Your task to perform on an android device: Add "usb-a" to the cart on newegg.com, then select checkout. Image 0: 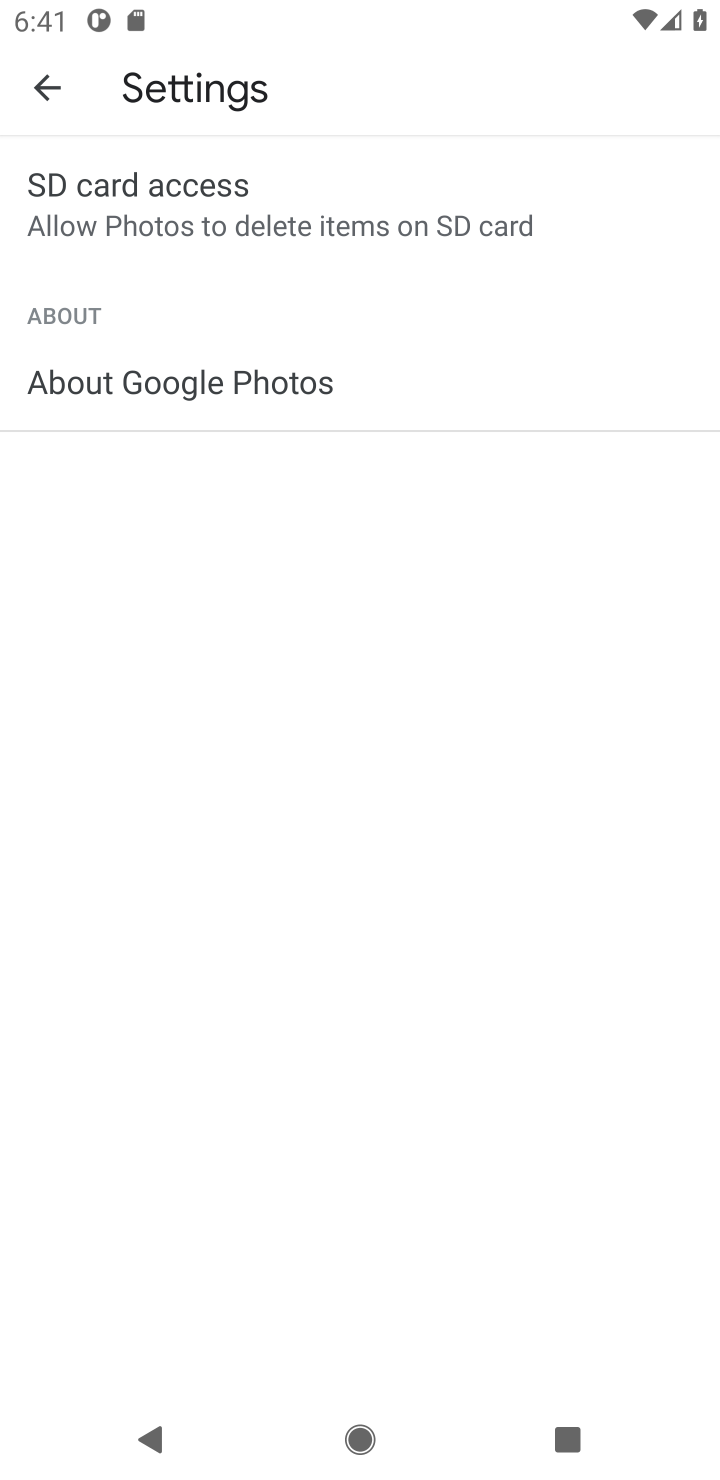
Step 0: press home button
Your task to perform on an android device: Add "usb-a" to the cart on newegg.com, then select checkout. Image 1: 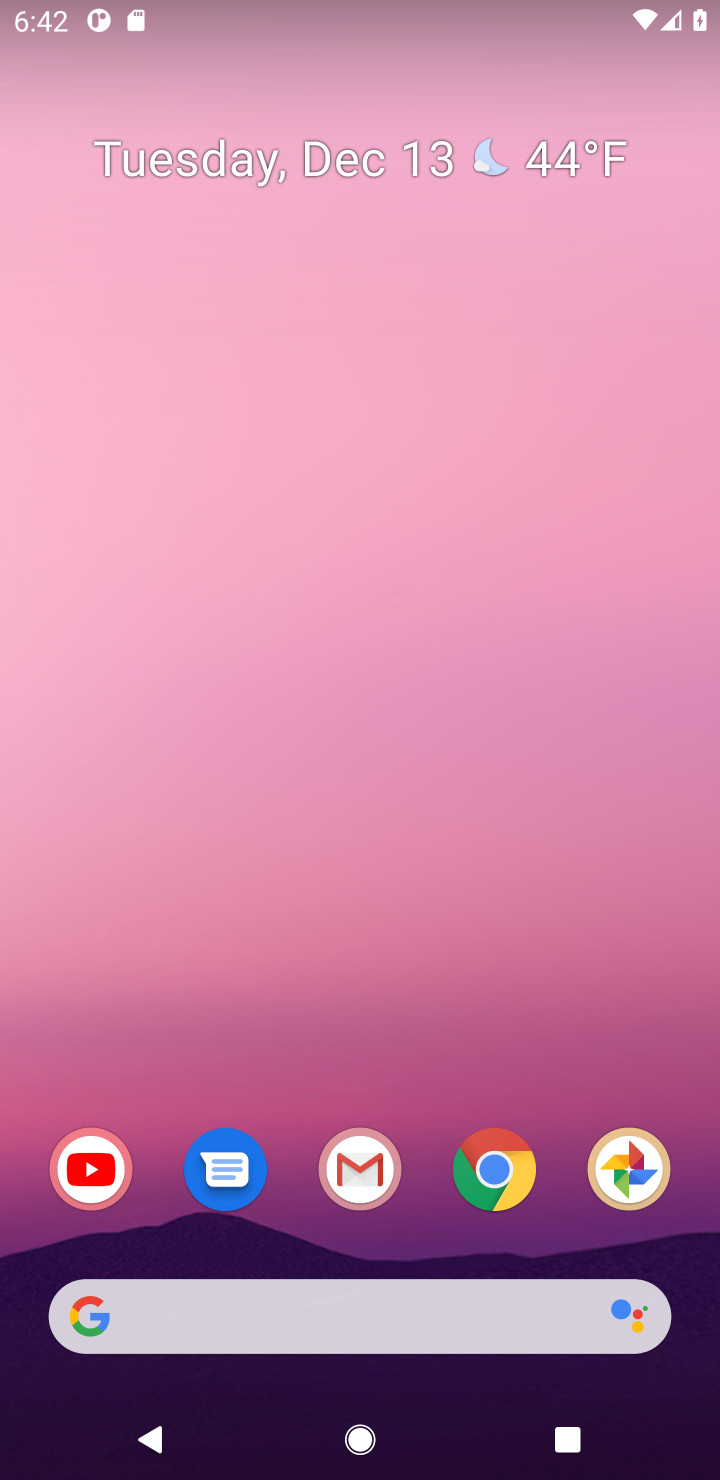
Step 1: click (514, 1200)
Your task to perform on an android device: Add "usb-a" to the cart on newegg.com, then select checkout. Image 2: 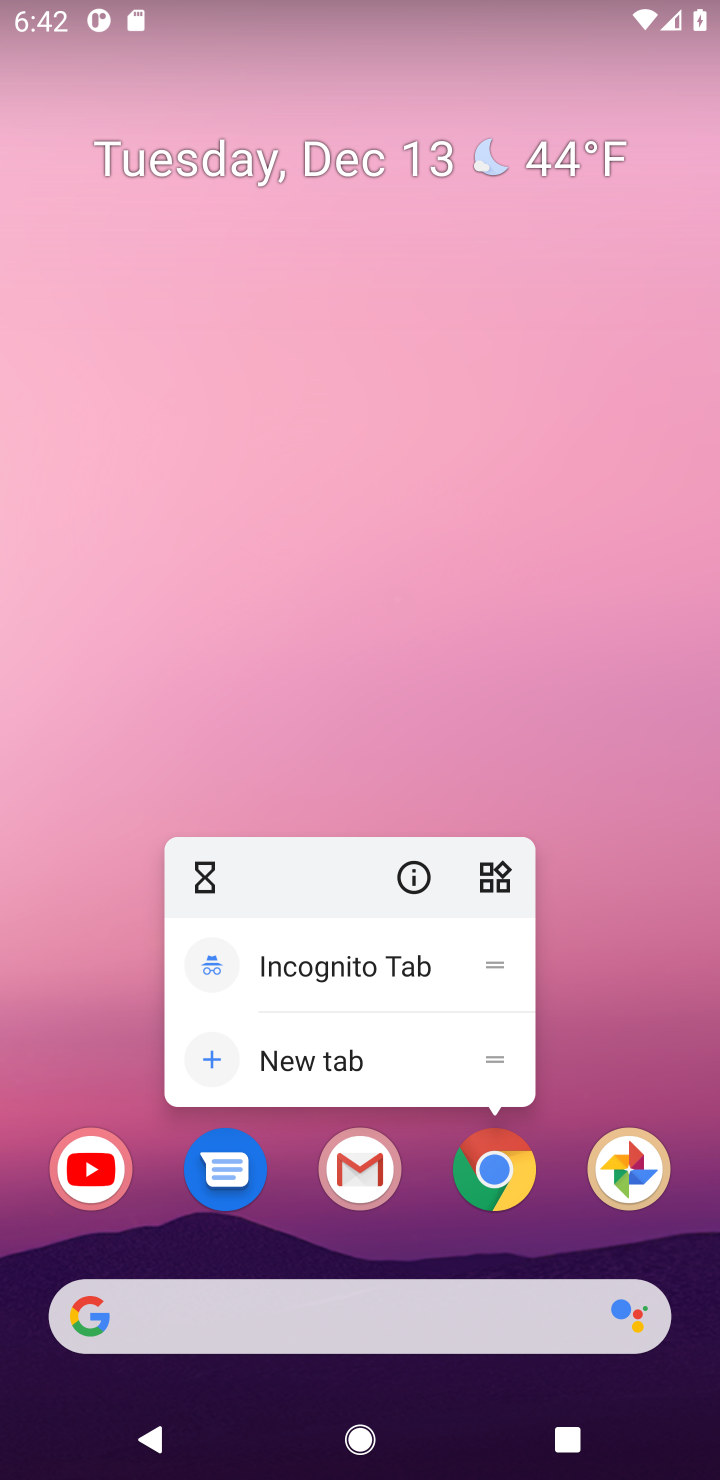
Step 2: click (465, 1162)
Your task to perform on an android device: Add "usb-a" to the cart on newegg.com, then select checkout. Image 3: 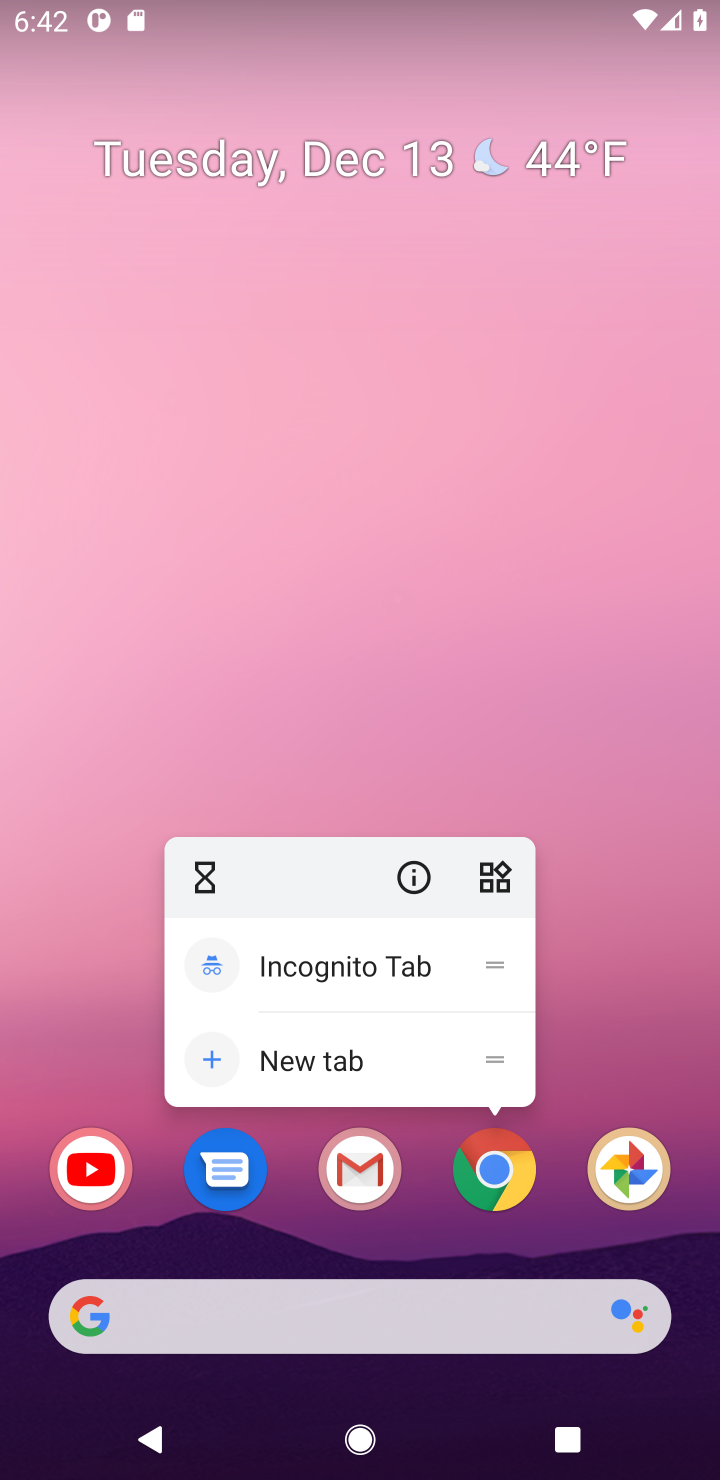
Step 3: click (489, 1164)
Your task to perform on an android device: Add "usb-a" to the cart on newegg.com, then select checkout. Image 4: 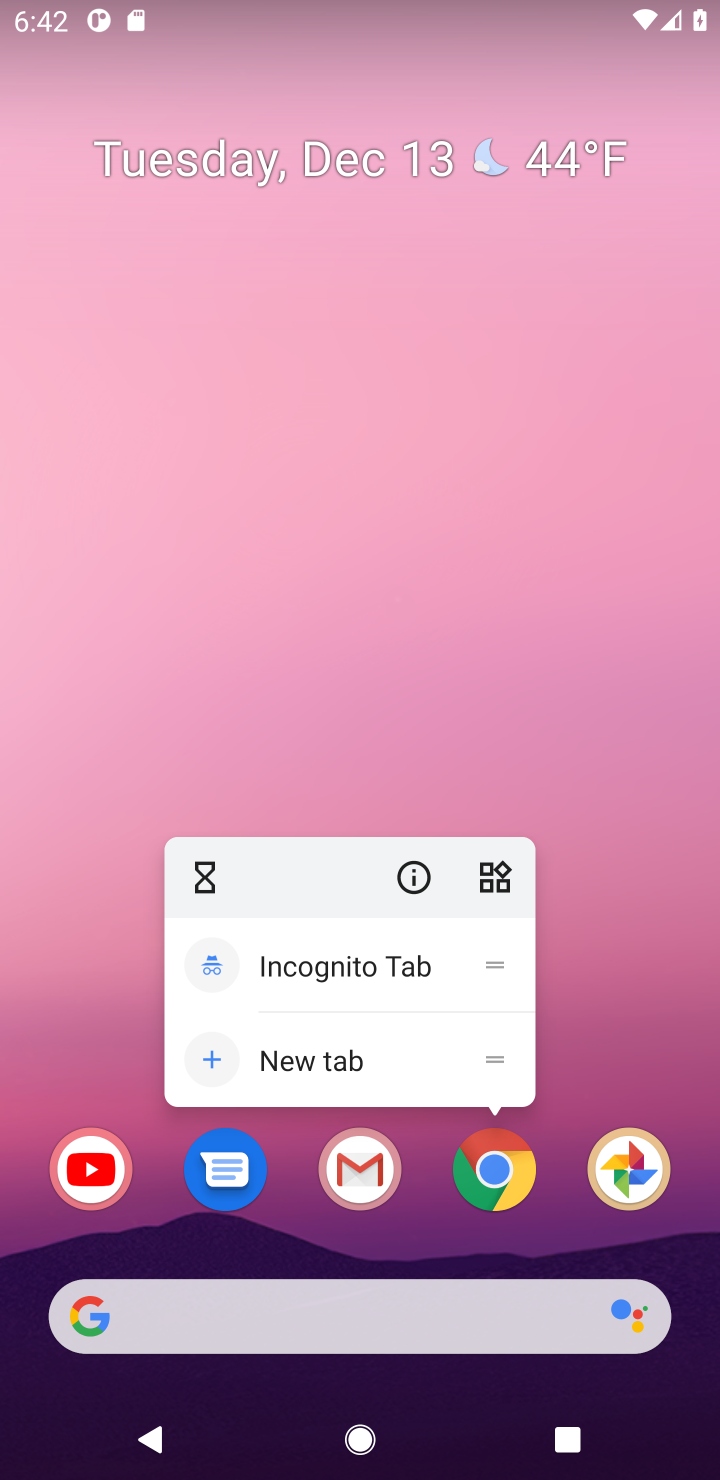
Step 4: click (489, 1164)
Your task to perform on an android device: Add "usb-a" to the cart on newegg.com, then select checkout. Image 5: 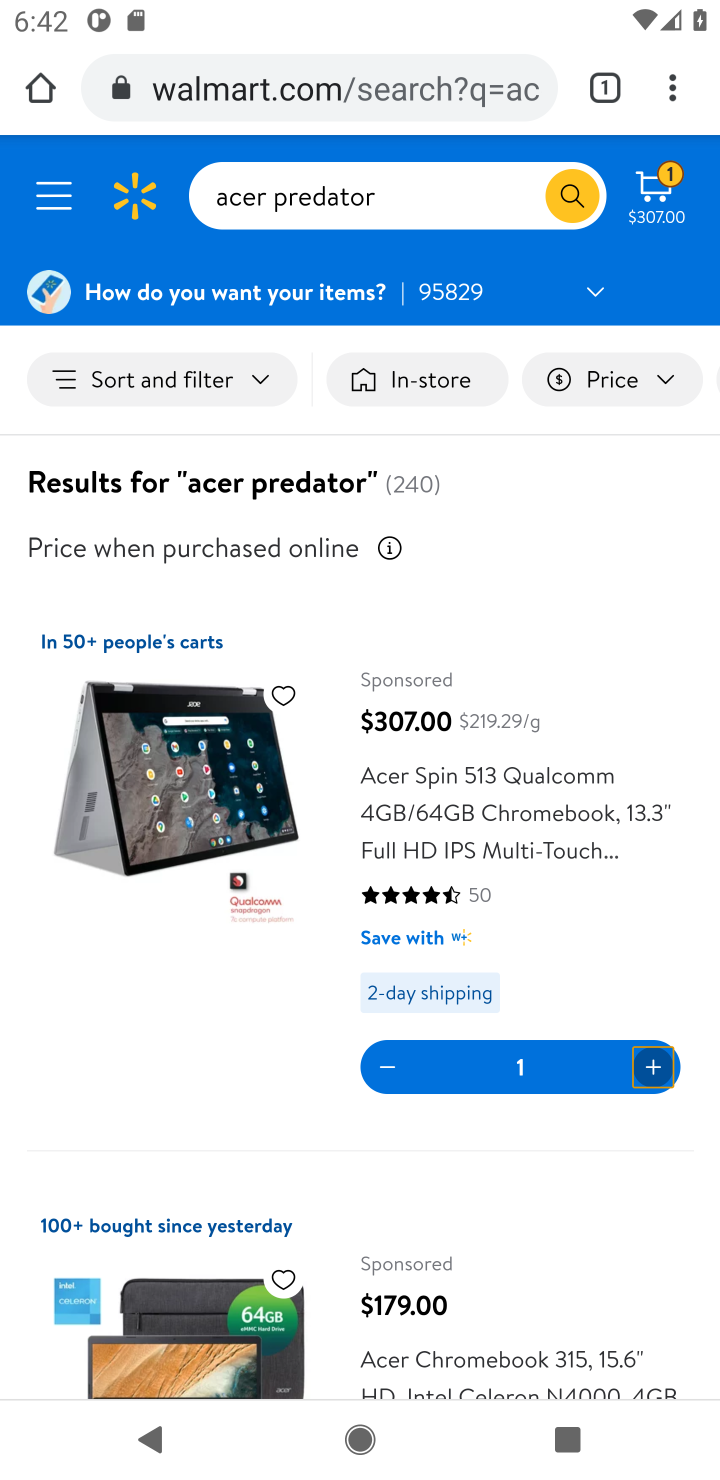
Step 5: click (238, 96)
Your task to perform on an android device: Add "usb-a" to the cart on newegg.com, then select checkout. Image 6: 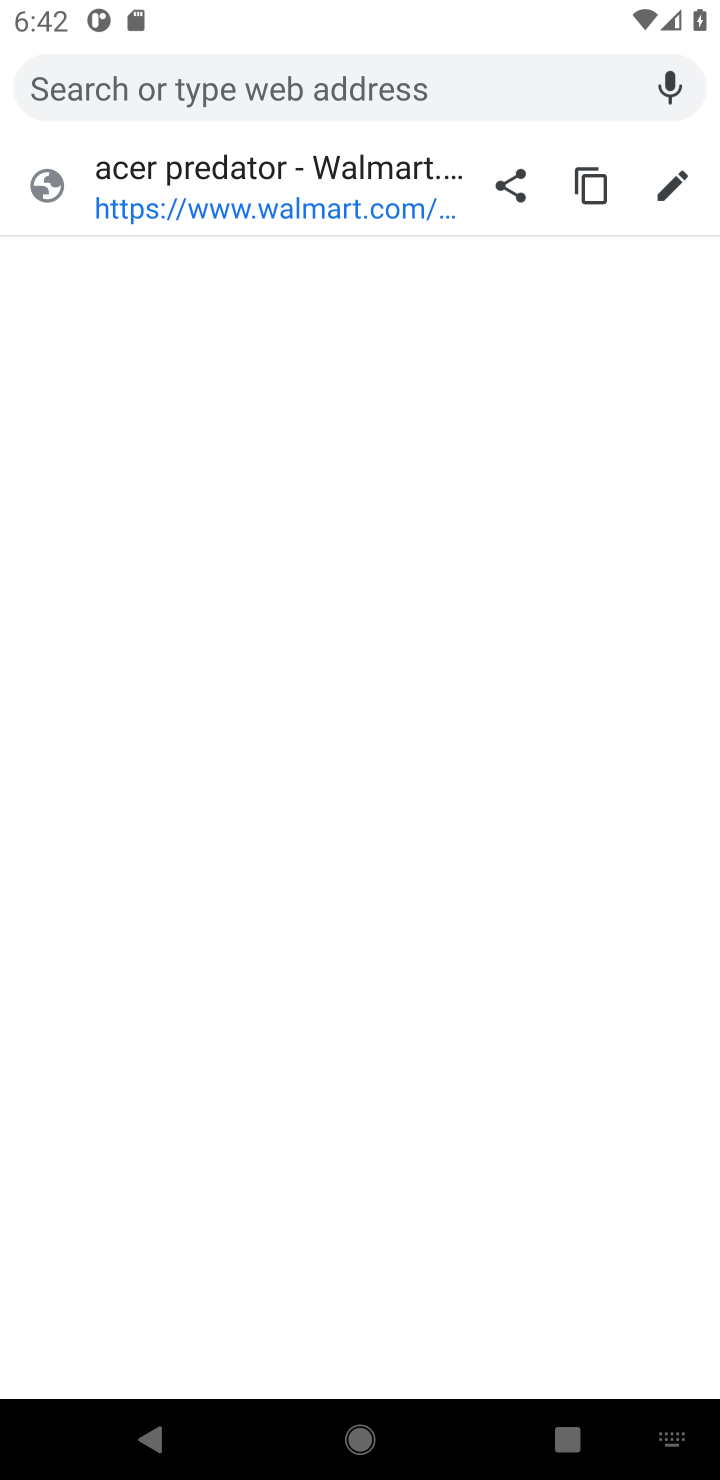
Step 6: type "newegg"
Your task to perform on an android device: Add "usb-a" to the cart on newegg.com, then select checkout. Image 7: 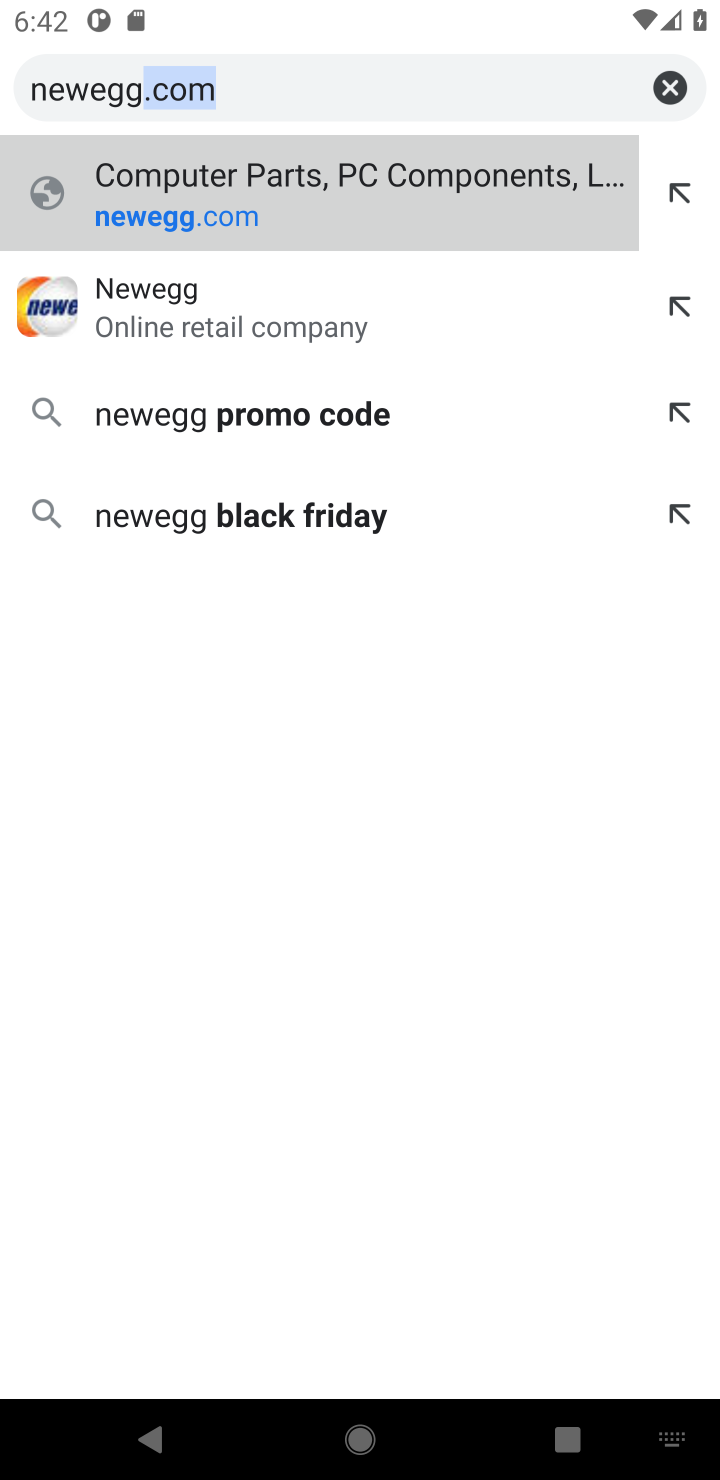
Step 7: click (424, 193)
Your task to perform on an android device: Add "usb-a" to the cart on newegg.com, then select checkout. Image 8: 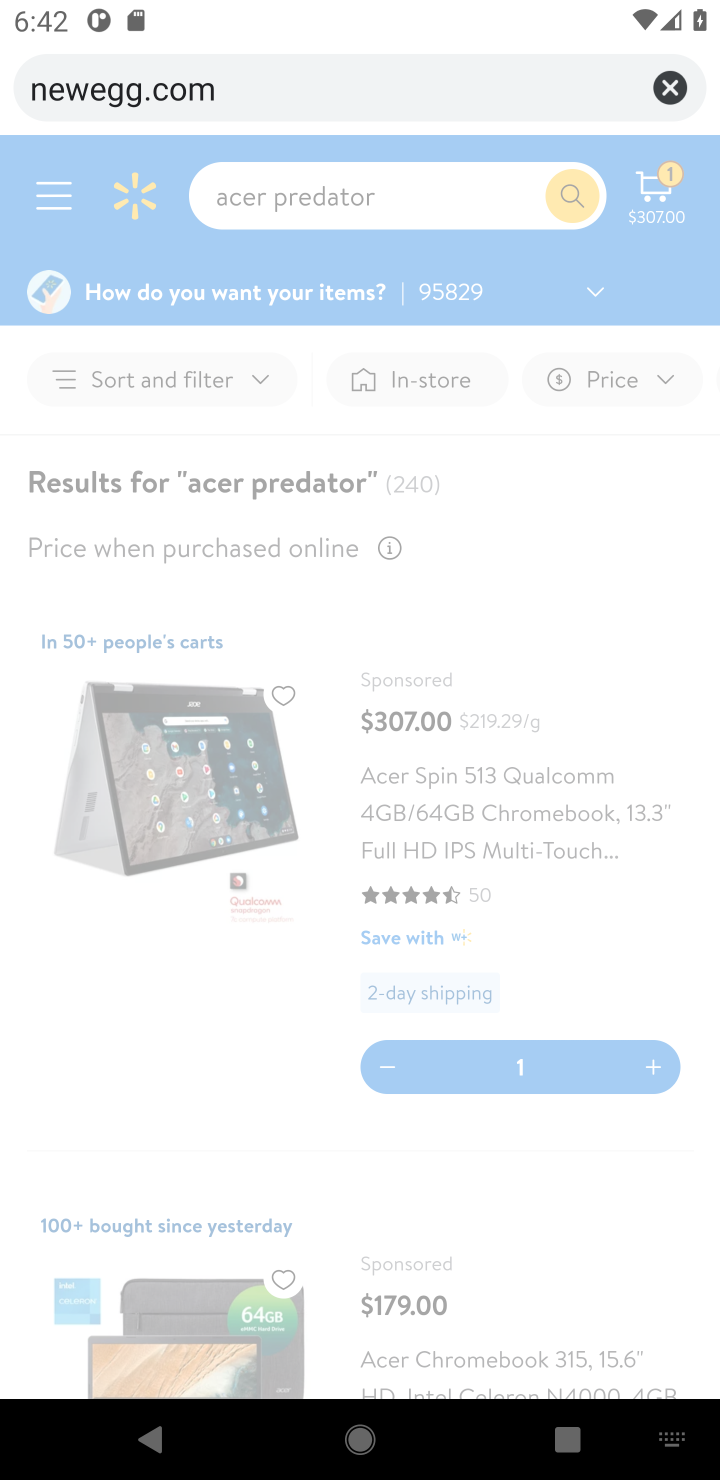
Step 8: click (424, 193)
Your task to perform on an android device: Add "usb-a" to the cart on newegg.com, then select checkout. Image 9: 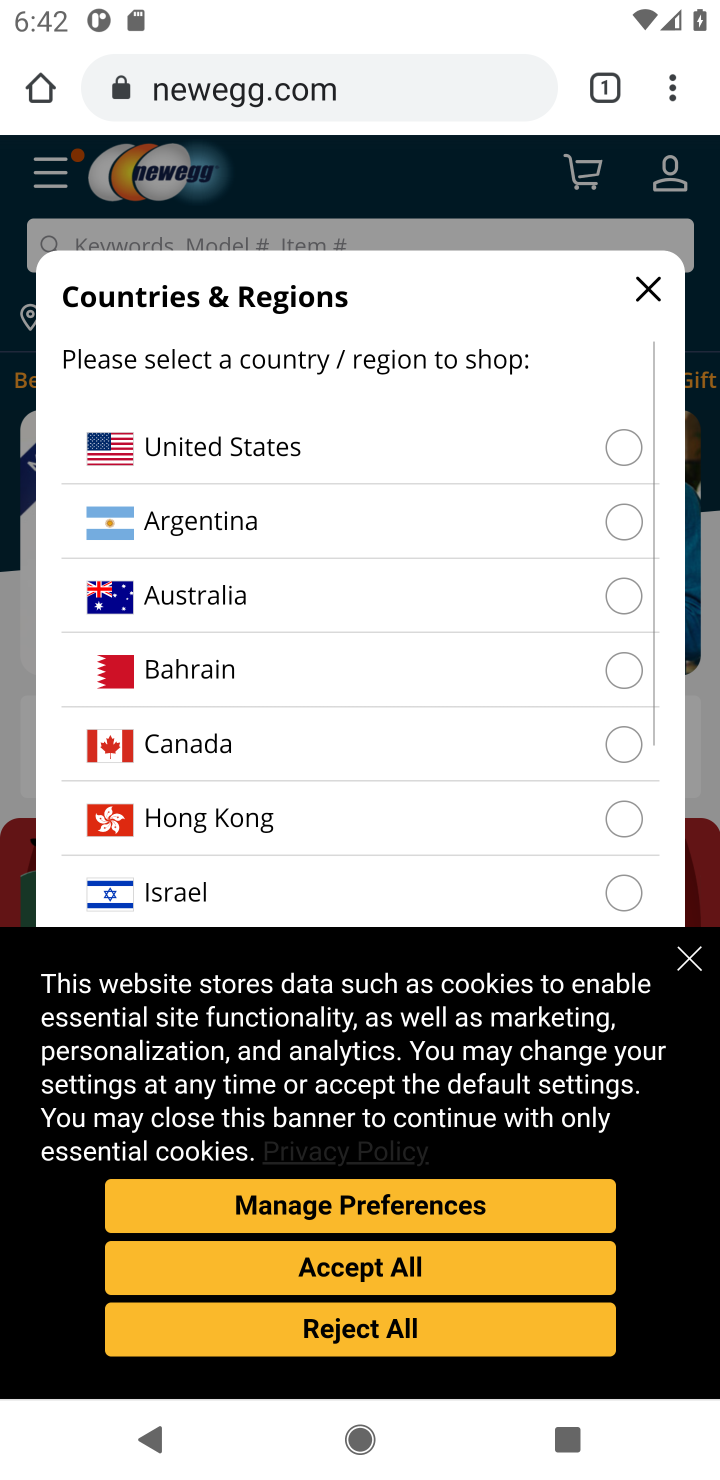
Step 9: click (456, 454)
Your task to perform on an android device: Add "usb-a" to the cart on newegg.com, then select checkout. Image 10: 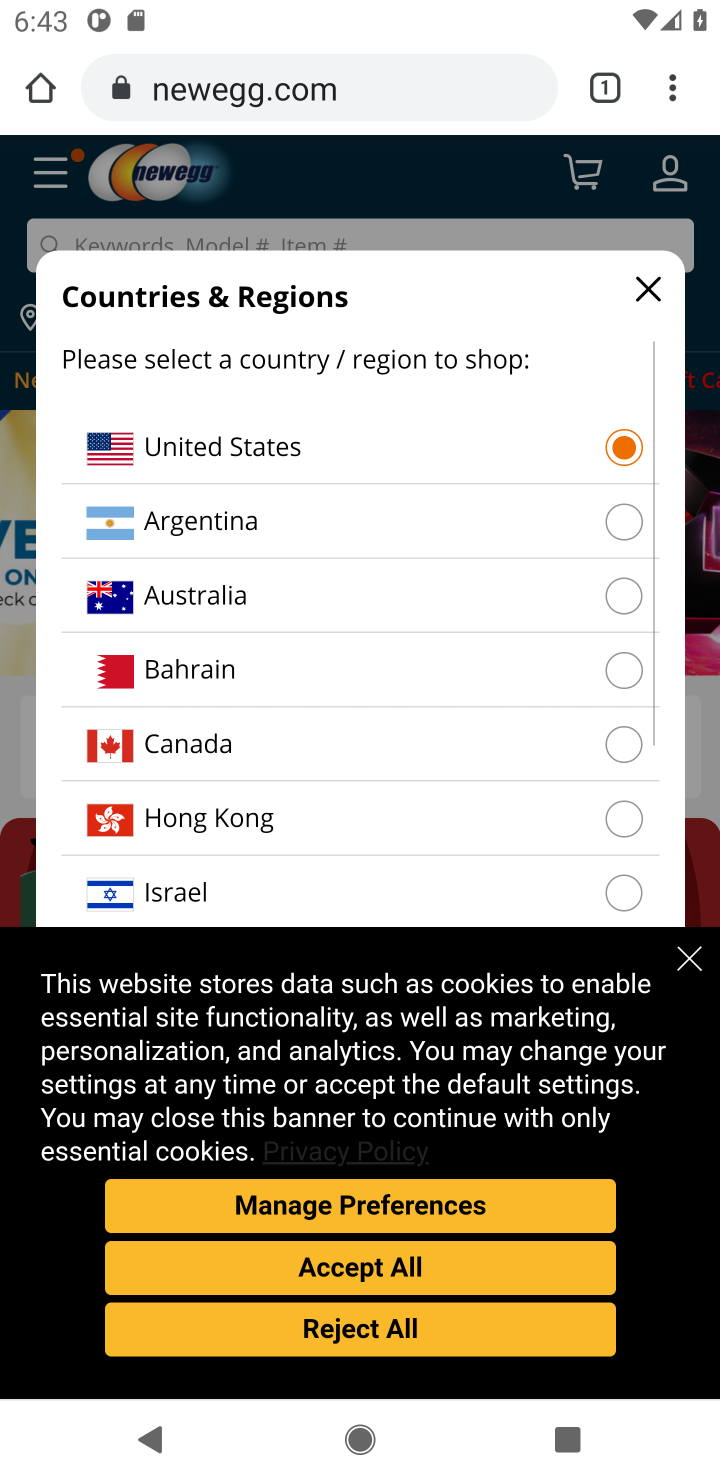
Step 10: click (450, 1253)
Your task to perform on an android device: Add "usb-a" to the cart on newegg.com, then select checkout. Image 11: 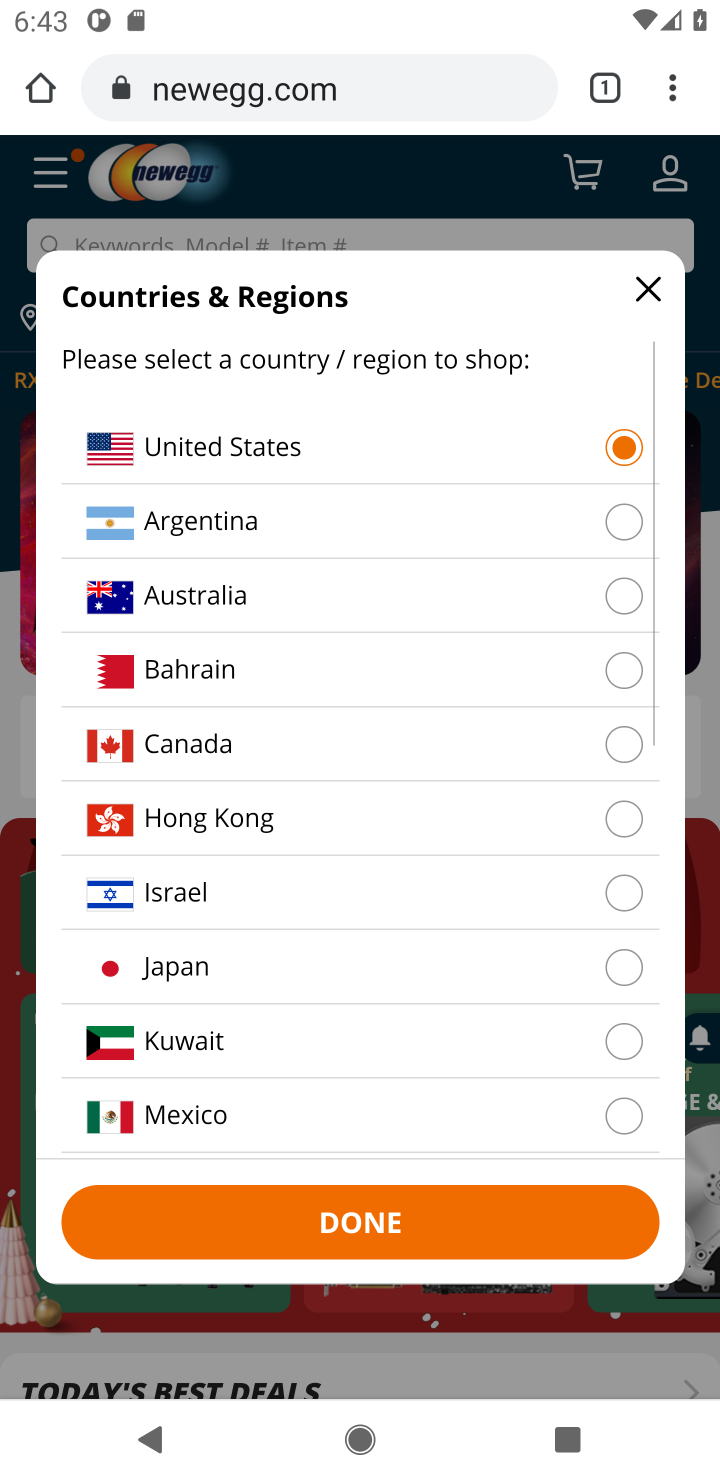
Step 11: click (411, 1198)
Your task to perform on an android device: Add "usb-a" to the cart on newegg.com, then select checkout. Image 12: 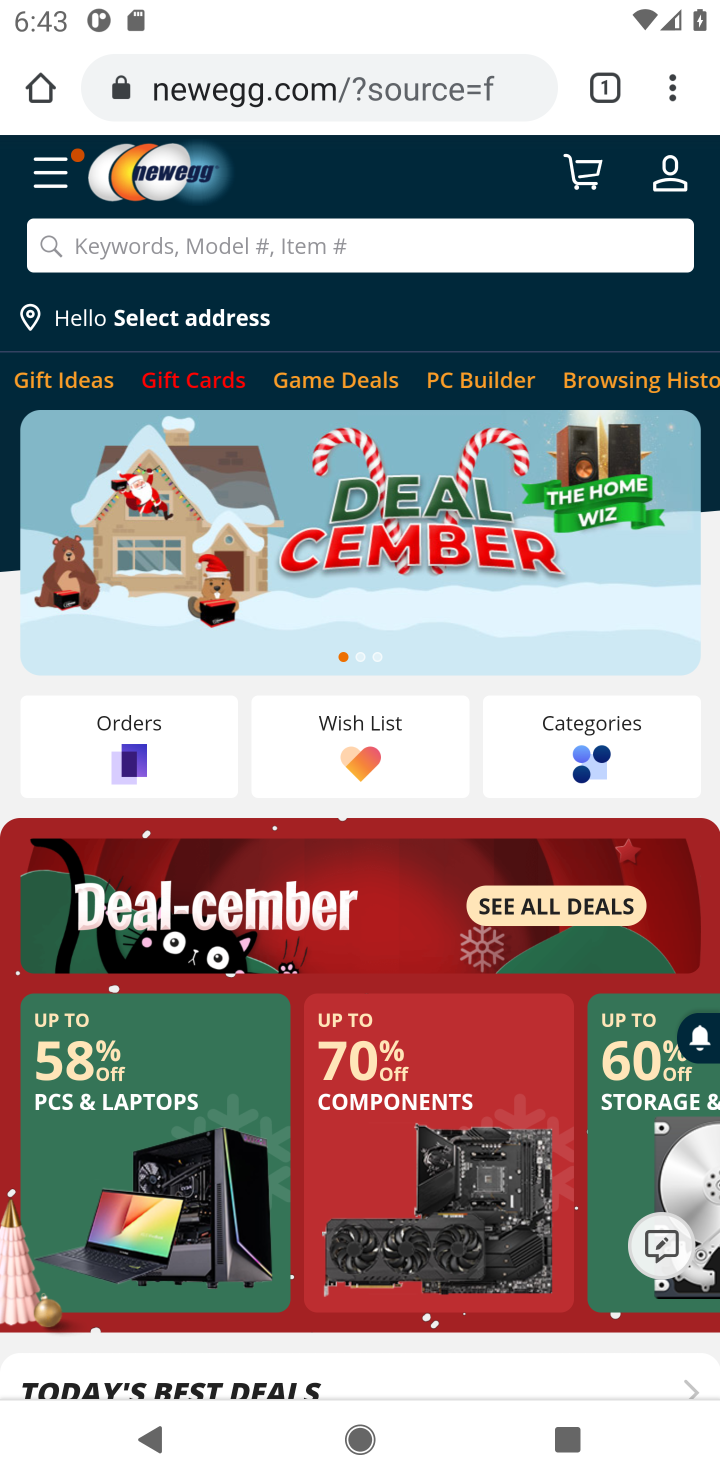
Step 12: click (367, 228)
Your task to perform on an android device: Add "usb-a" to the cart on newegg.com, then select checkout. Image 13: 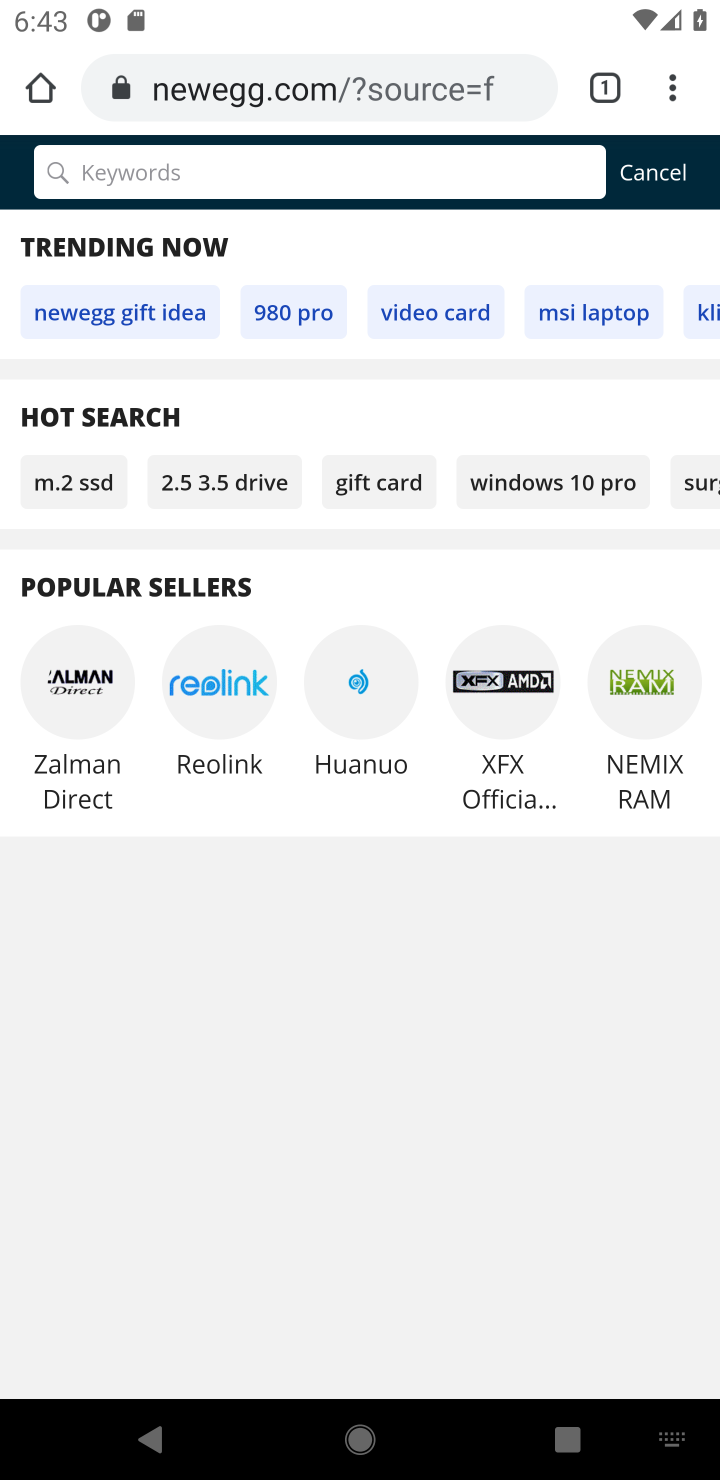
Step 13: type "usb-a"
Your task to perform on an android device: Add "usb-a" to the cart on newegg.com, then select checkout. Image 14: 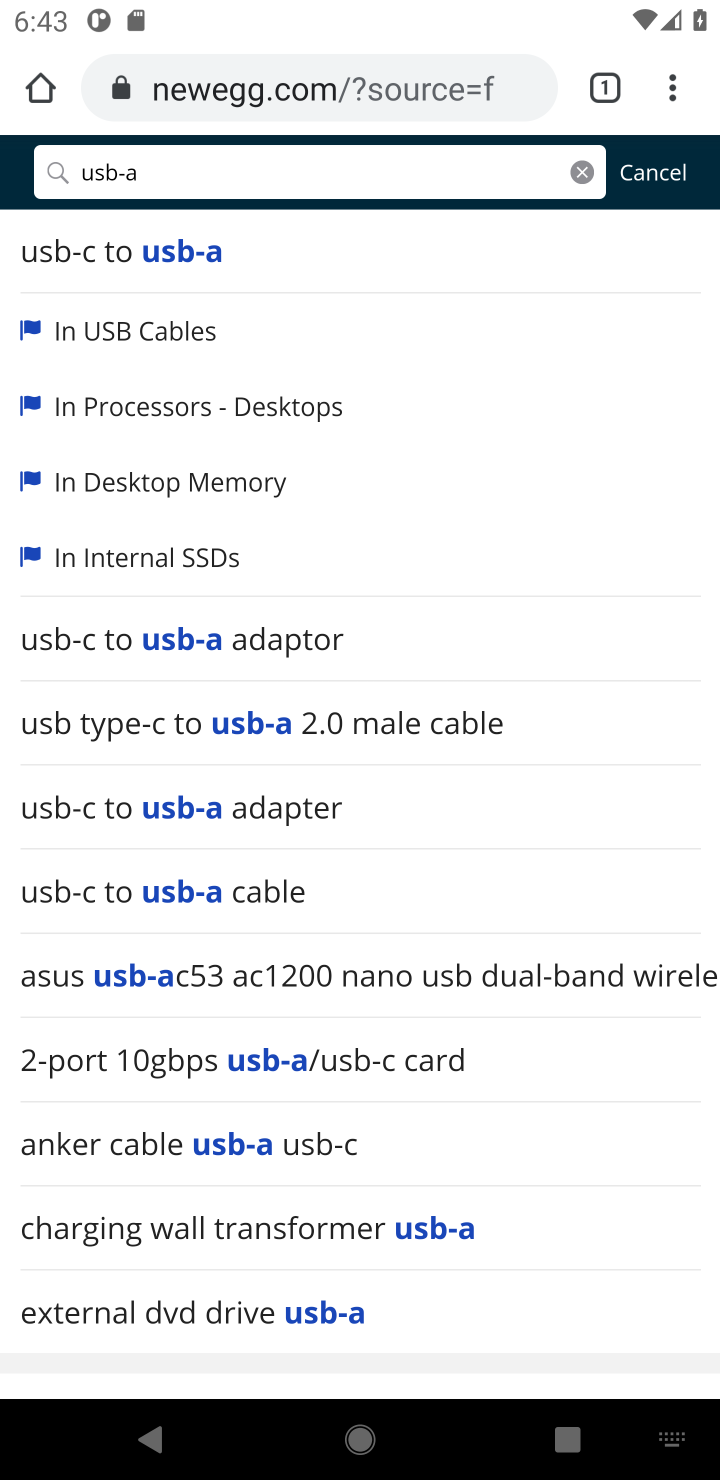
Step 14: click (309, 341)
Your task to perform on an android device: Add "usb-a" to the cart on newegg.com, then select checkout. Image 15: 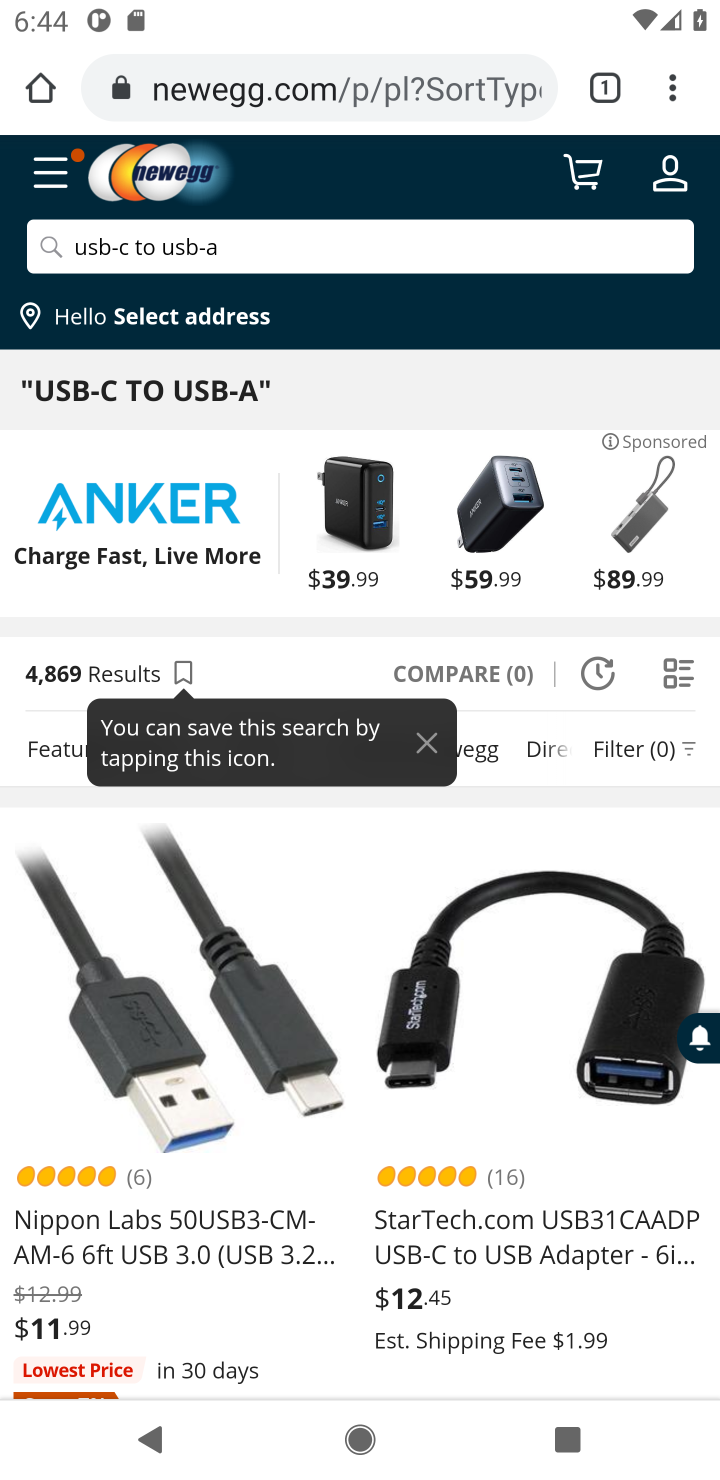
Step 15: click (142, 948)
Your task to perform on an android device: Add "usb-a" to the cart on newegg.com, then select checkout. Image 16: 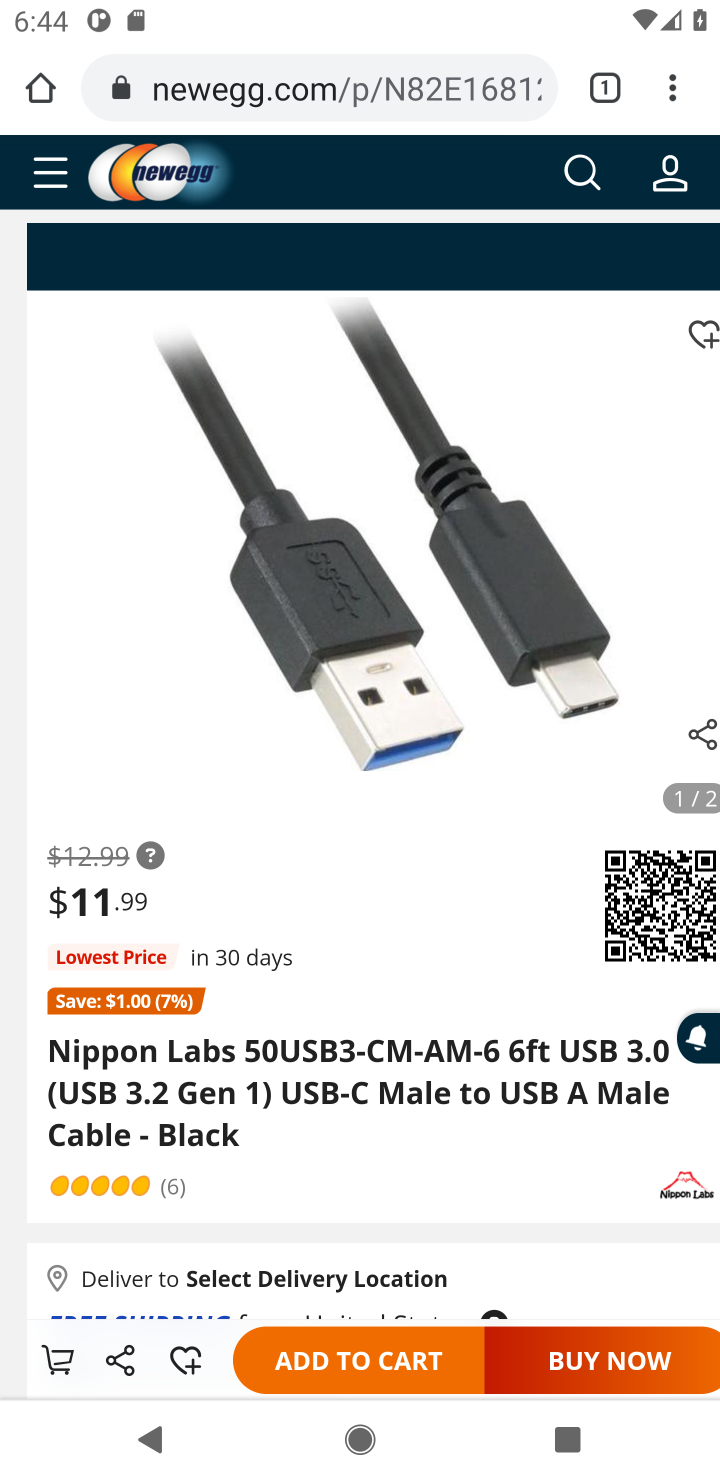
Step 16: click (142, 948)
Your task to perform on an android device: Add "usb-a" to the cart on newegg.com, then select checkout. Image 17: 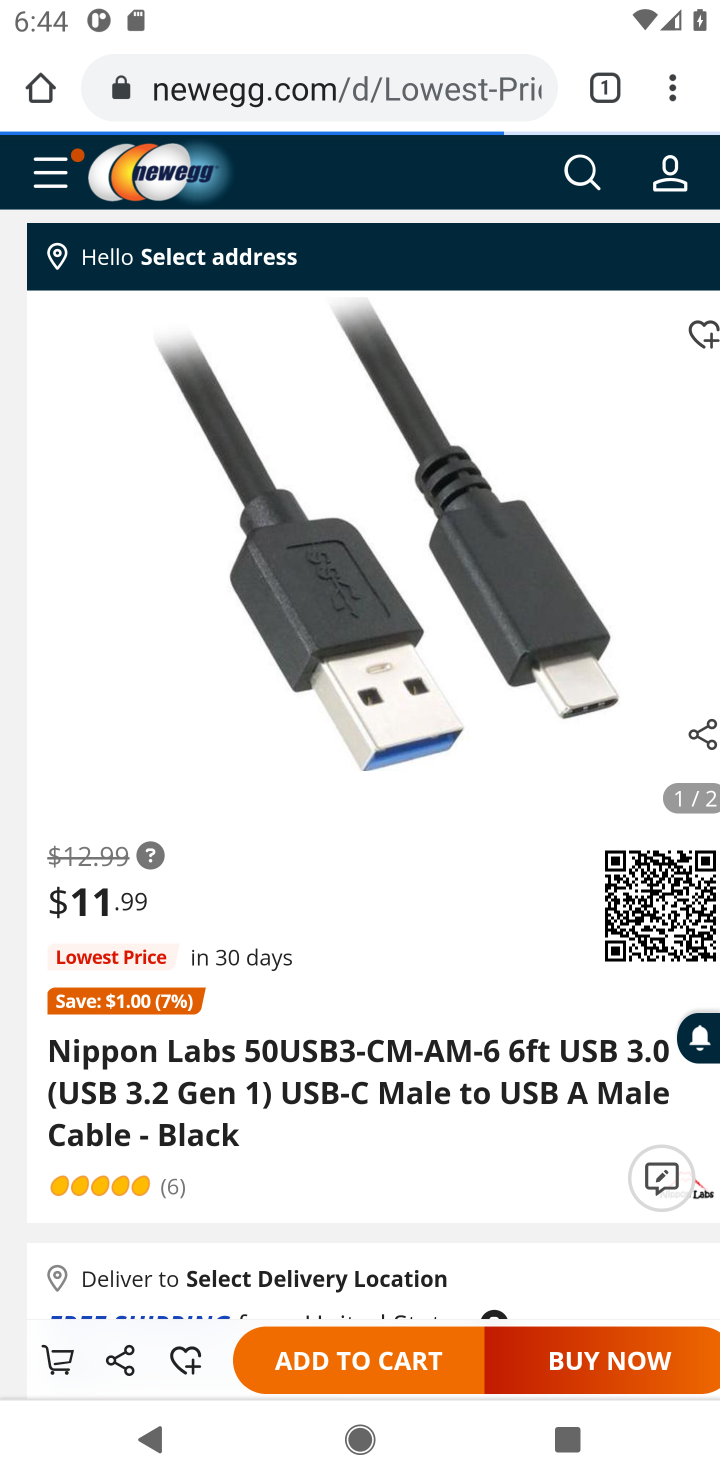
Step 17: click (325, 1352)
Your task to perform on an android device: Add "usb-a" to the cart on newegg.com, then select checkout. Image 18: 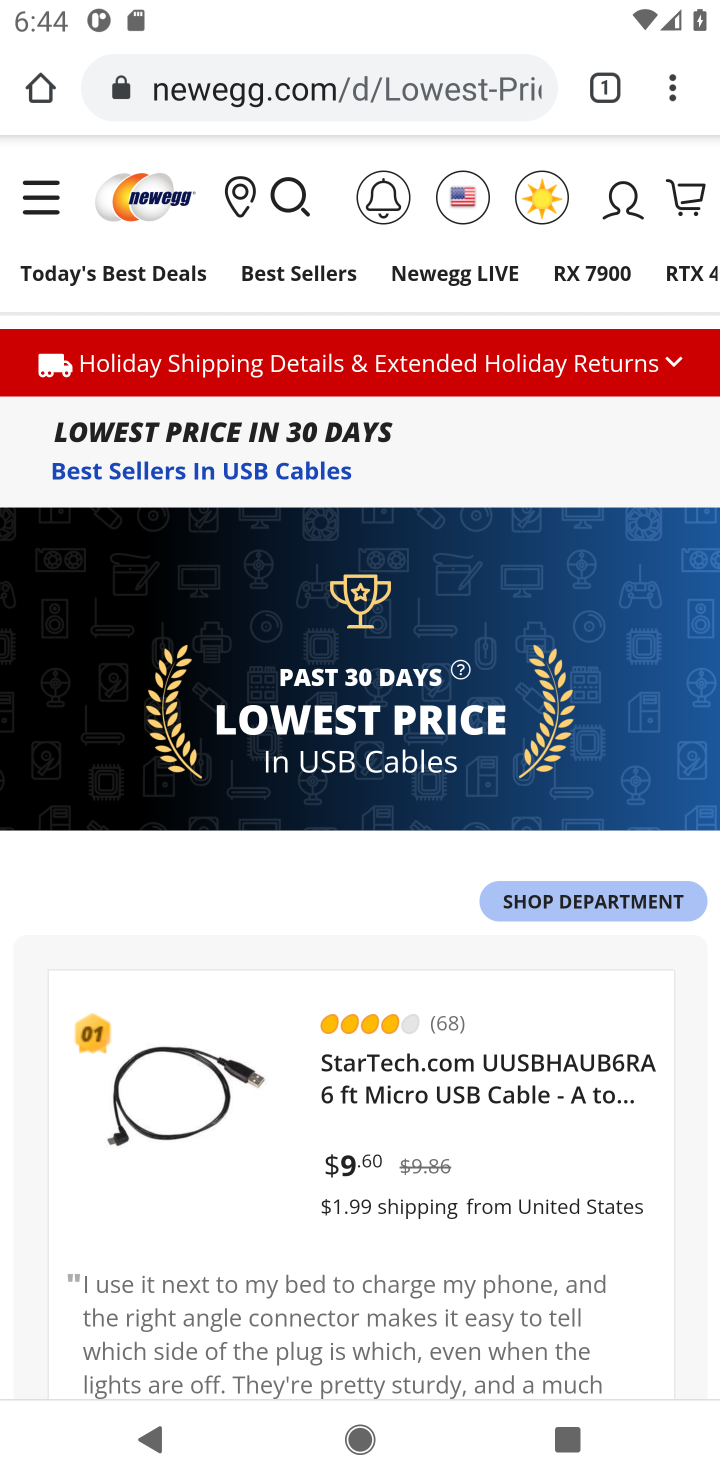
Step 18: drag from (325, 1352) to (387, 690)
Your task to perform on an android device: Add "usb-a" to the cart on newegg.com, then select checkout. Image 19: 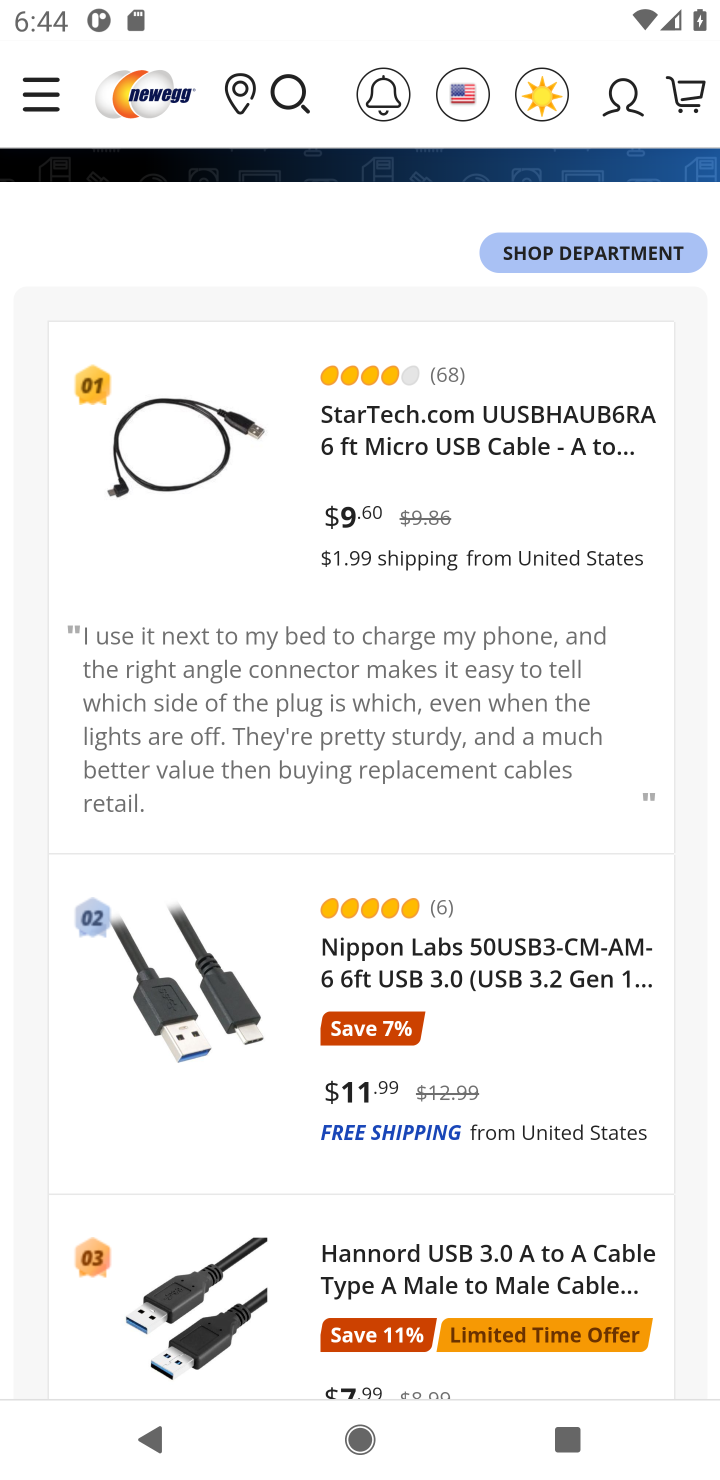
Step 19: click (435, 419)
Your task to perform on an android device: Add "usb-a" to the cart on newegg.com, then select checkout. Image 20: 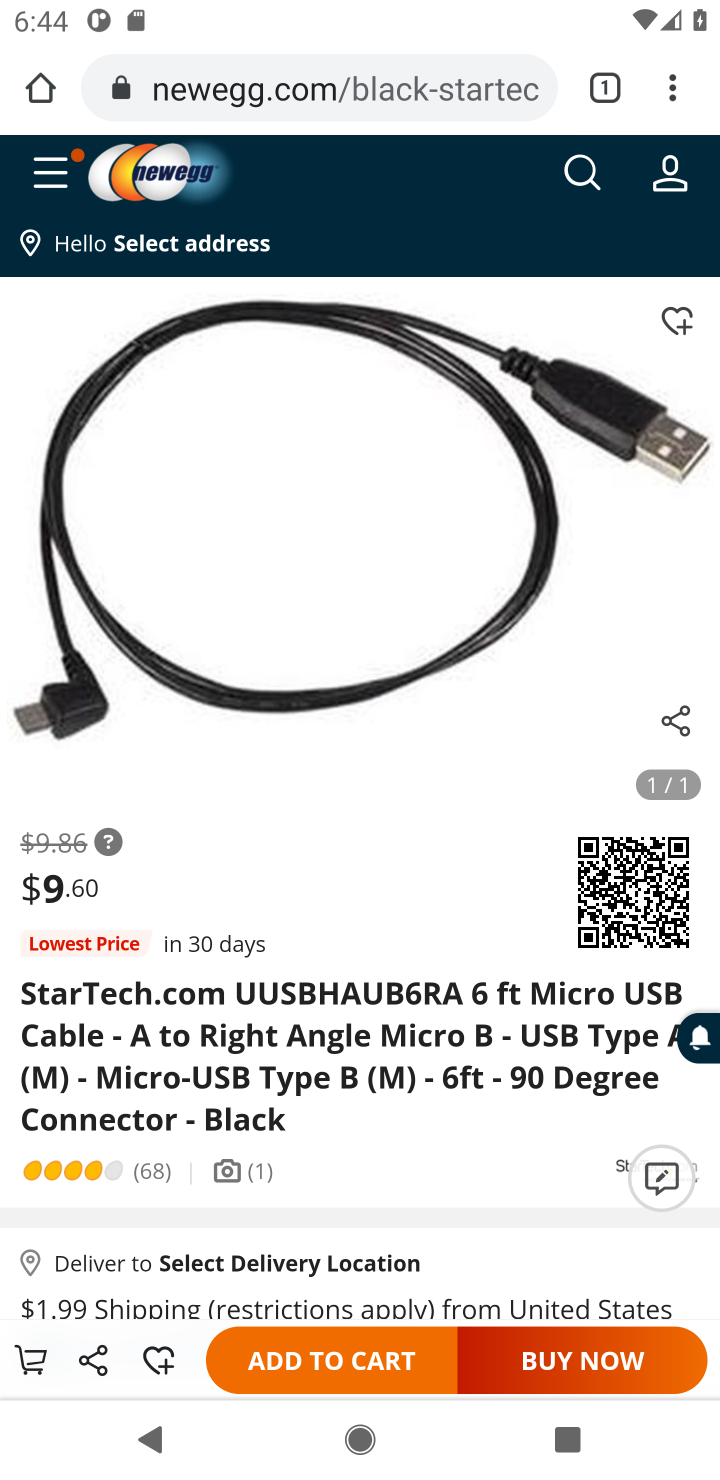
Step 20: click (400, 1367)
Your task to perform on an android device: Add "usb-a" to the cart on newegg.com, then select checkout. Image 21: 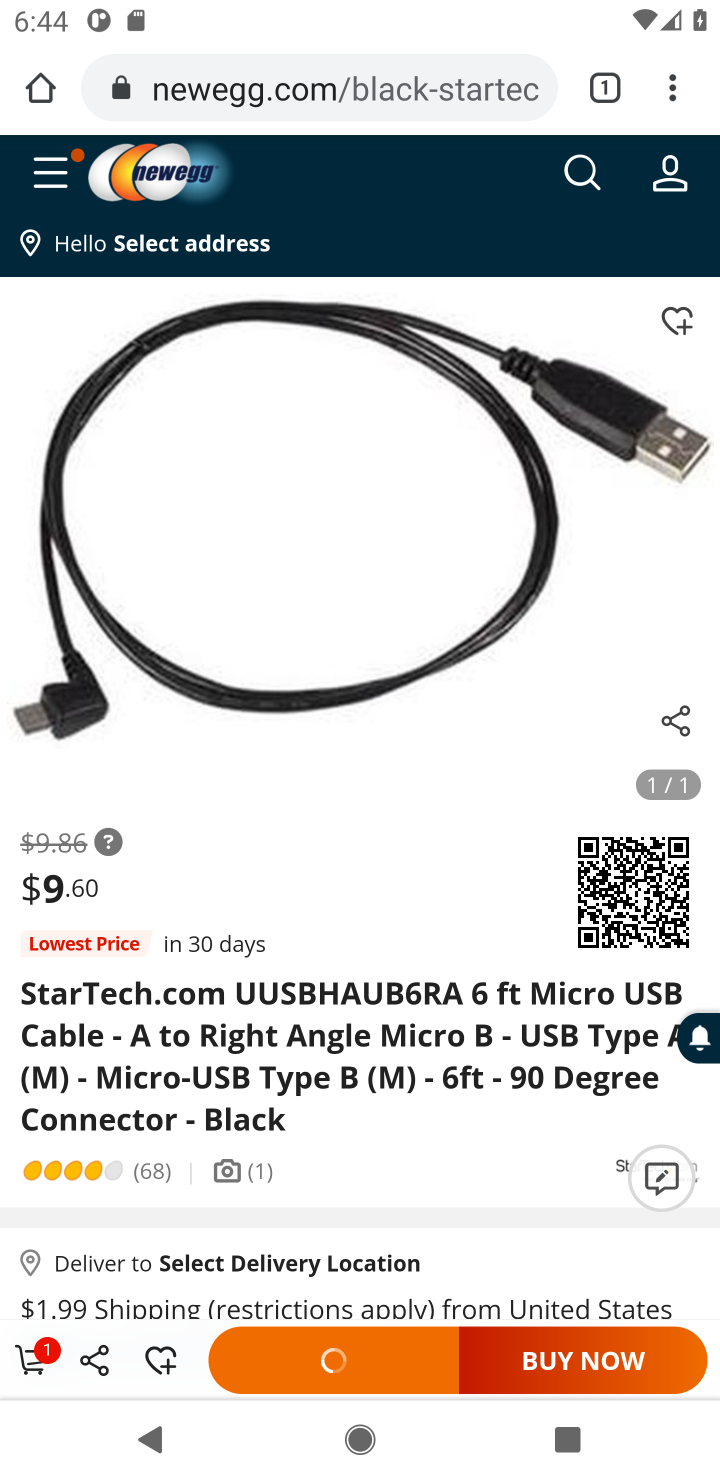
Step 21: task complete